Your task to perform on an android device: check google app version Image 0: 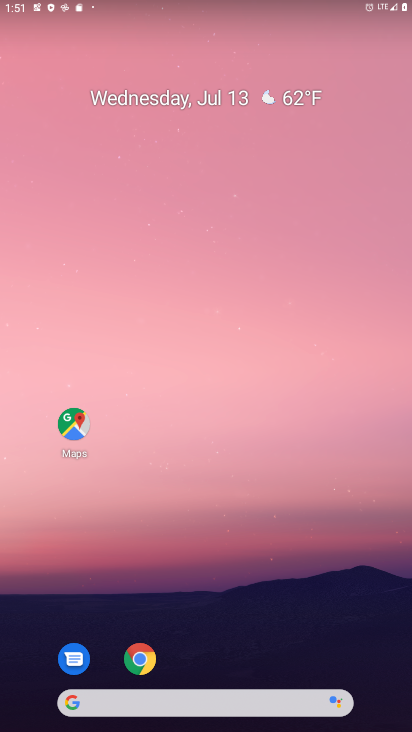
Step 0: drag from (214, 730) to (212, 37)
Your task to perform on an android device: check google app version Image 1: 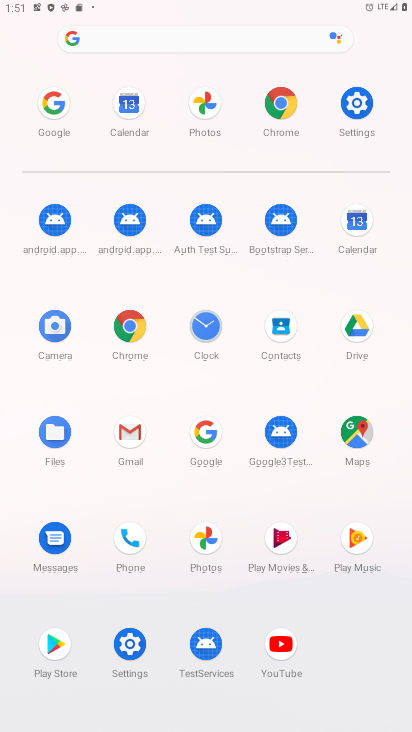
Step 1: click (208, 438)
Your task to perform on an android device: check google app version Image 2: 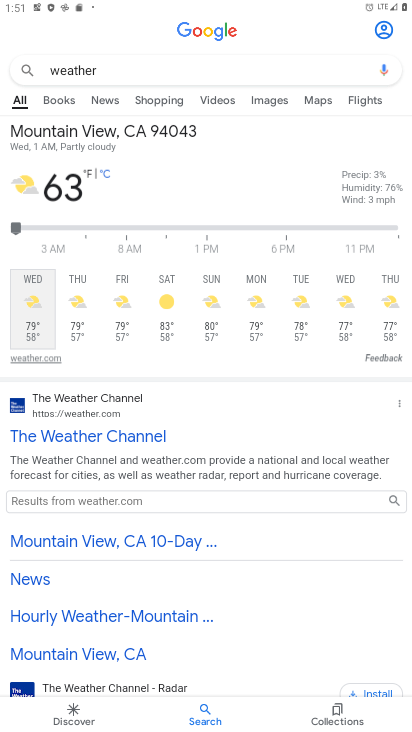
Step 2: click (383, 28)
Your task to perform on an android device: check google app version Image 3: 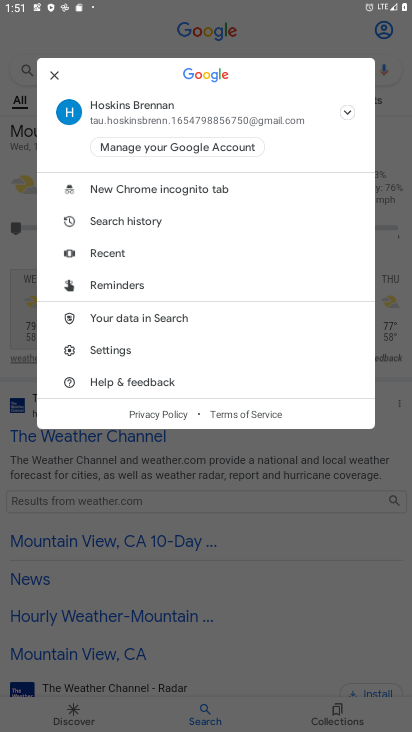
Step 3: click (97, 349)
Your task to perform on an android device: check google app version Image 4: 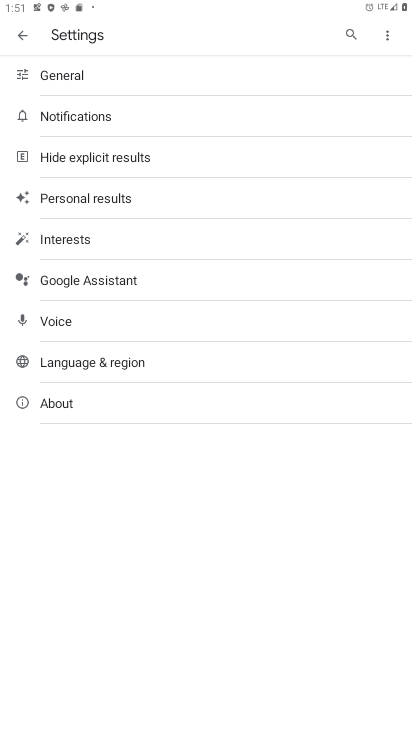
Step 4: click (60, 394)
Your task to perform on an android device: check google app version Image 5: 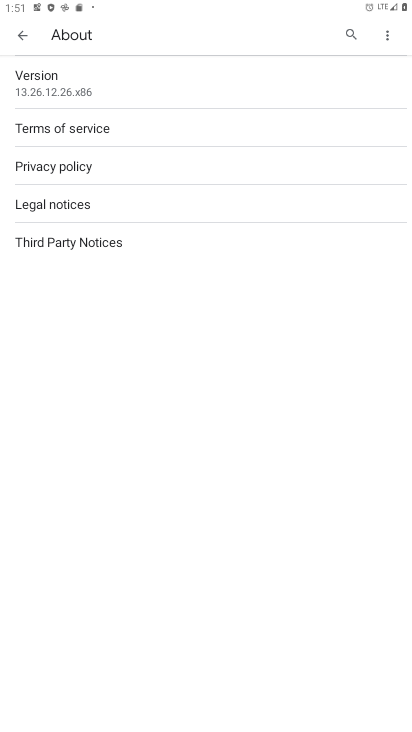
Step 5: task complete